Your task to perform on an android device: Go to location settings Image 0: 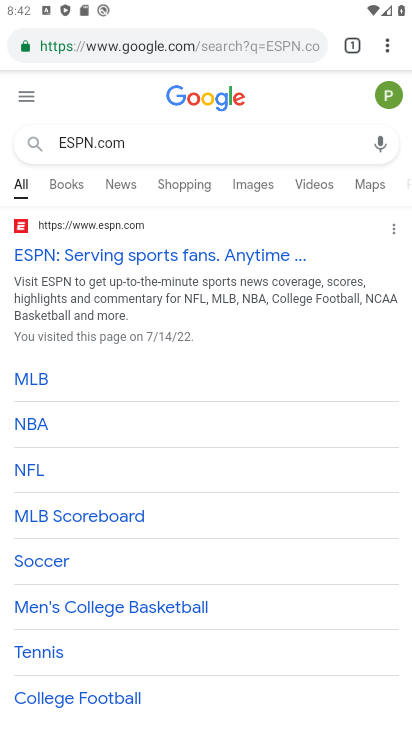
Step 0: press home button
Your task to perform on an android device: Go to location settings Image 1: 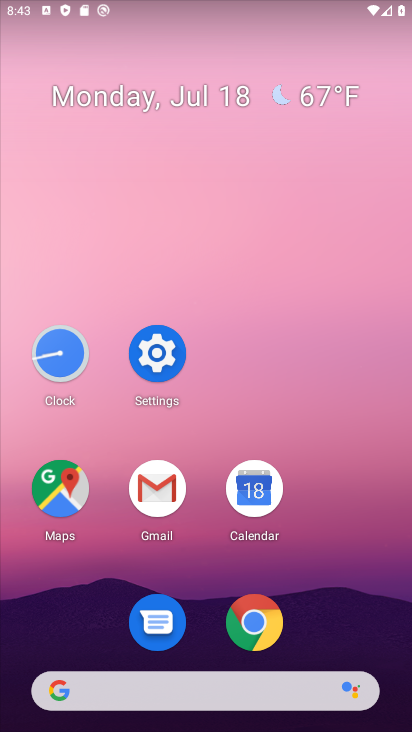
Step 1: click (163, 355)
Your task to perform on an android device: Go to location settings Image 2: 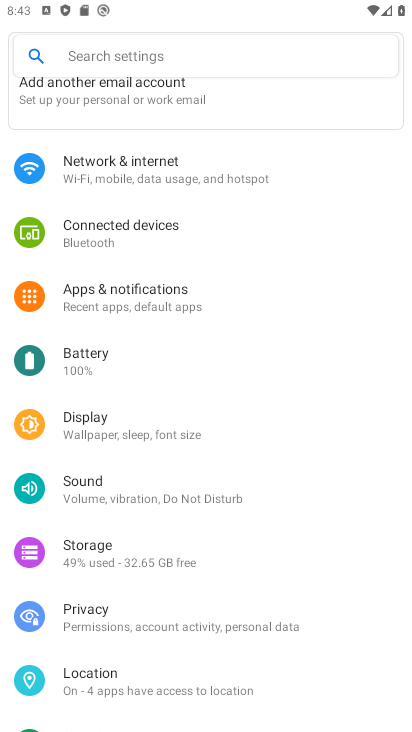
Step 2: click (86, 667)
Your task to perform on an android device: Go to location settings Image 3: 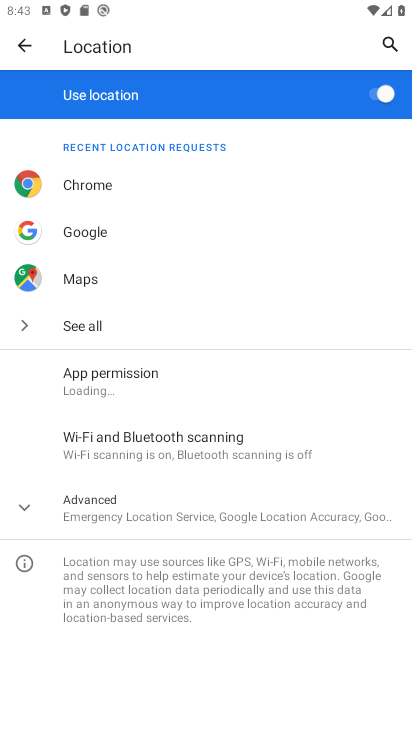
Step 3: click (32, 503)
Your task to perform on an android device: Go to location settings Image 4: 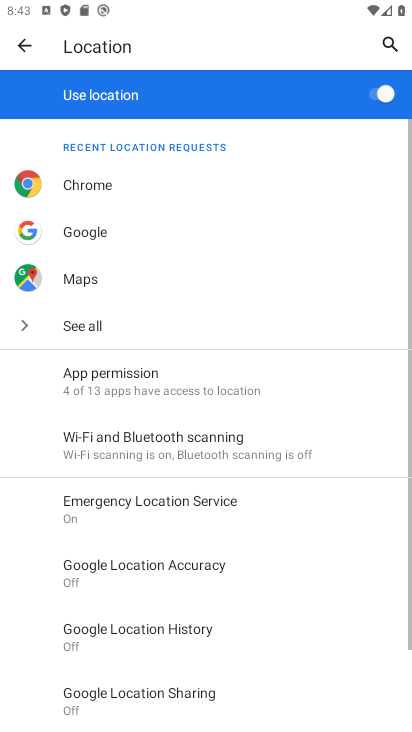
Step 4: task complete